Your task to perform on an android device: remove spam from my inbox in the gmail app Image 0: 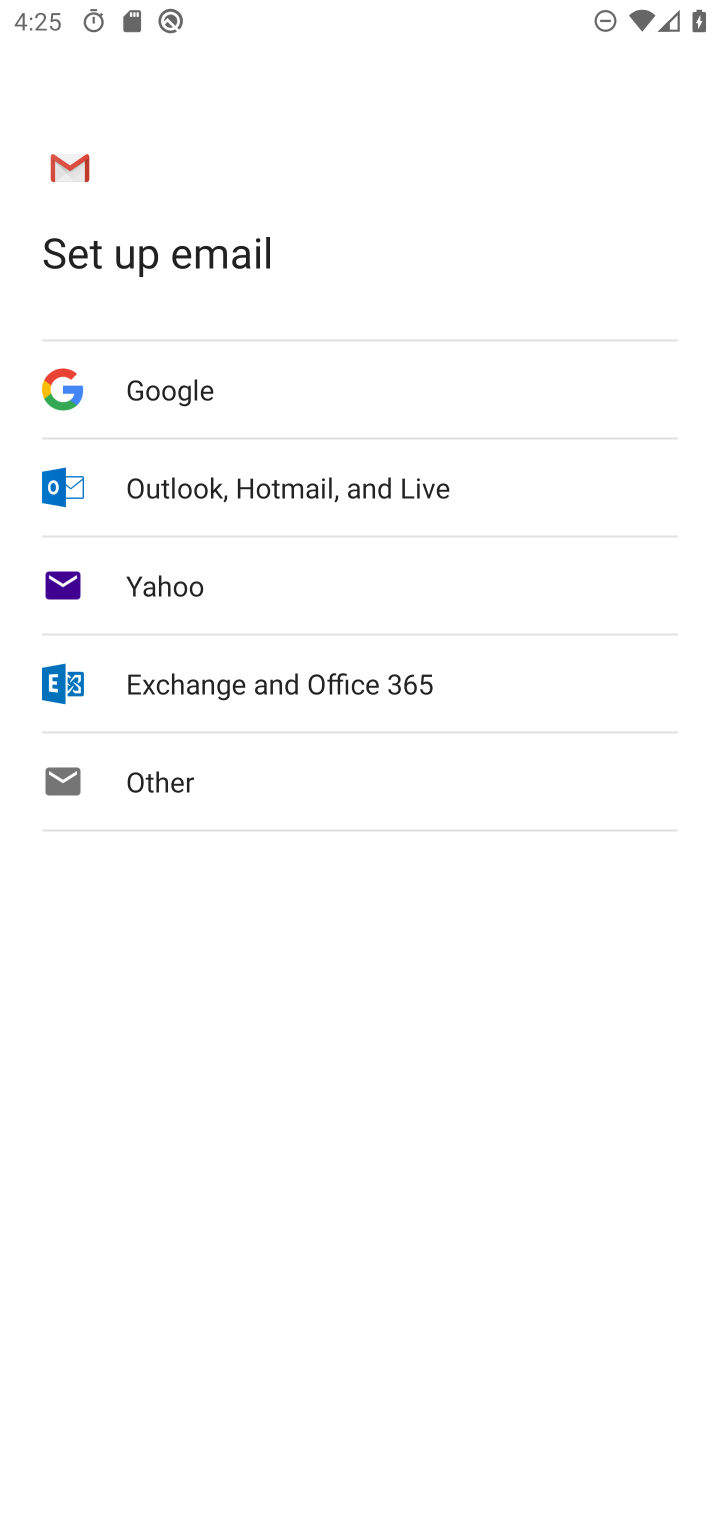
Step 0: press home button
Your task to perform on an android device: remove spam from my inbox in the gmail app Image 1: 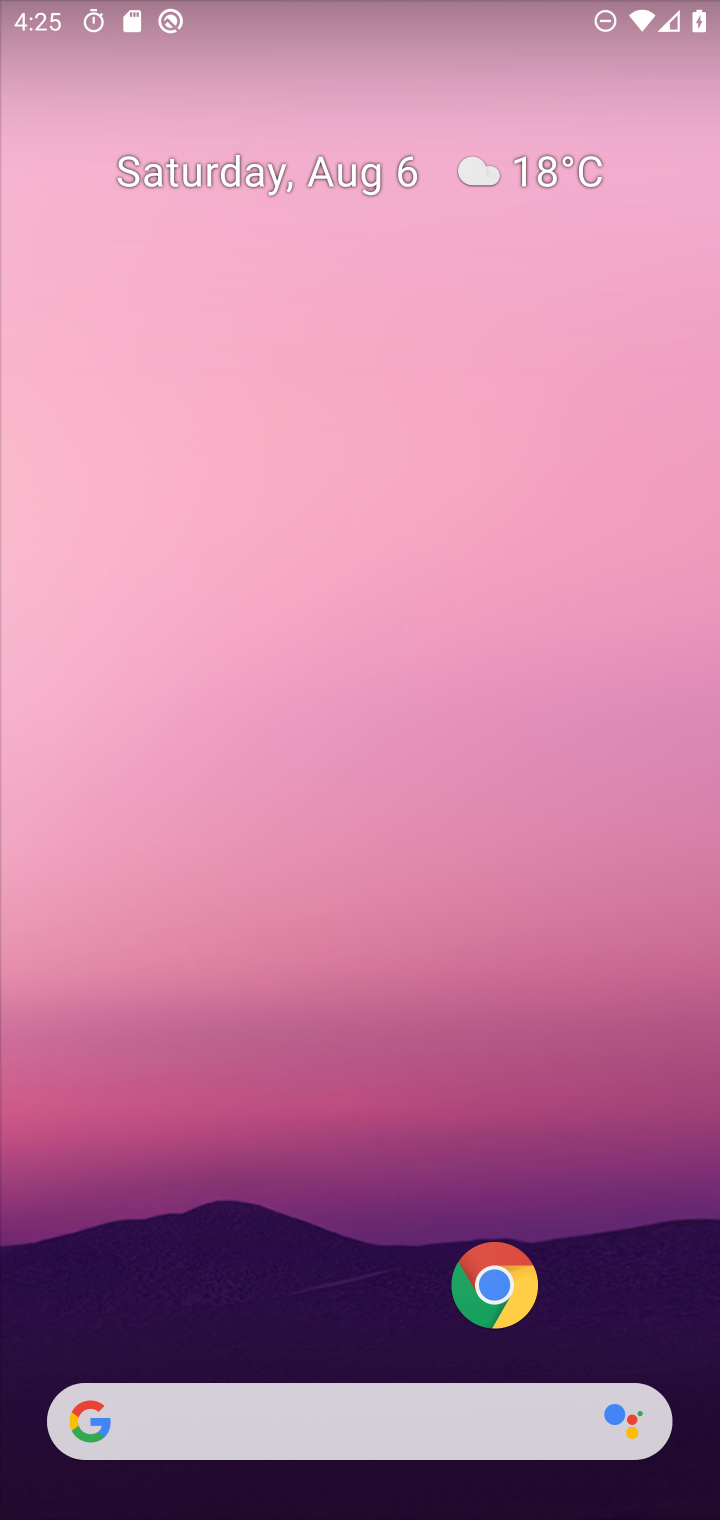
Step 1: drag from (372, 1309) to (401, 179)
Your task to perform on an android device: remove spam from my inbox in the gmail app Image 2: 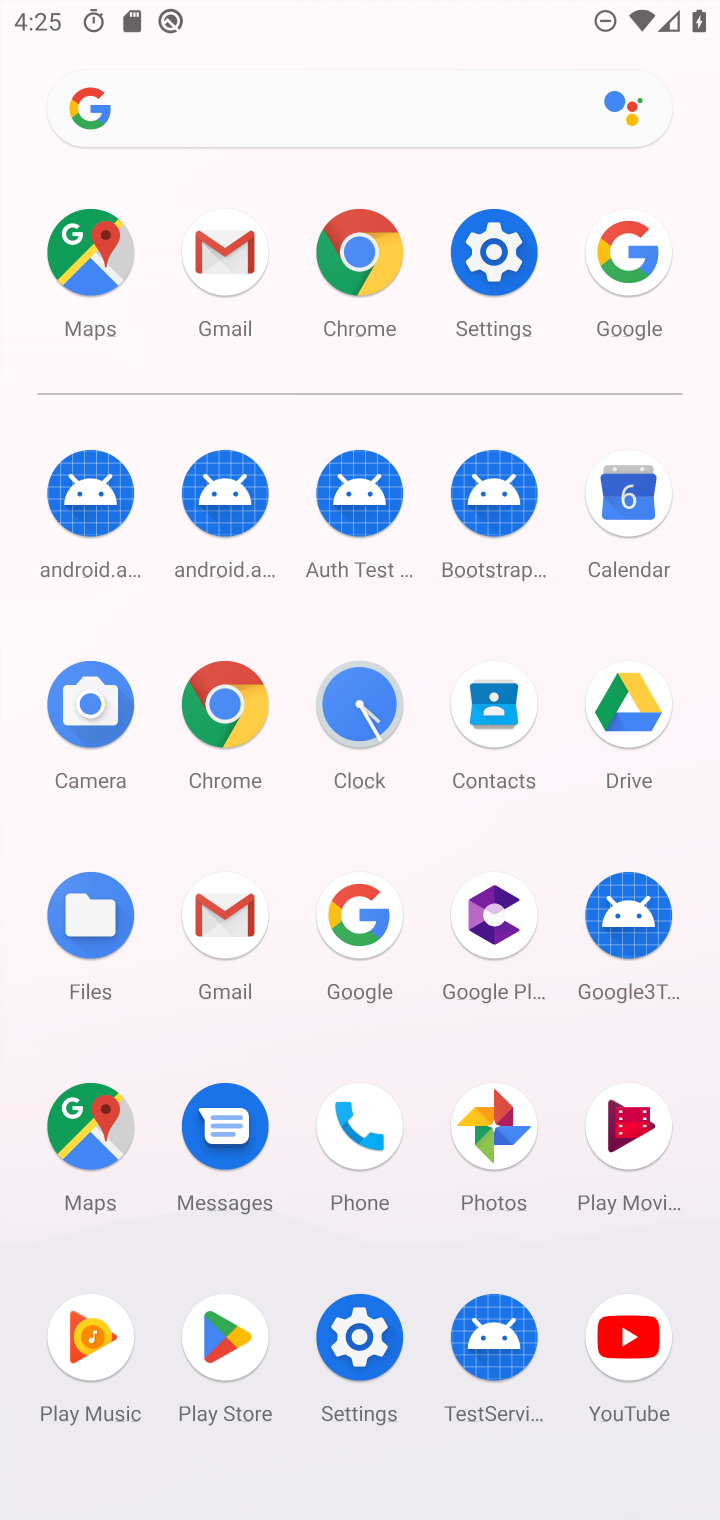
Step 2: click (213, 892)
Your task to perform on an android device: remove spam from my inbox in the gmail app Image 3: 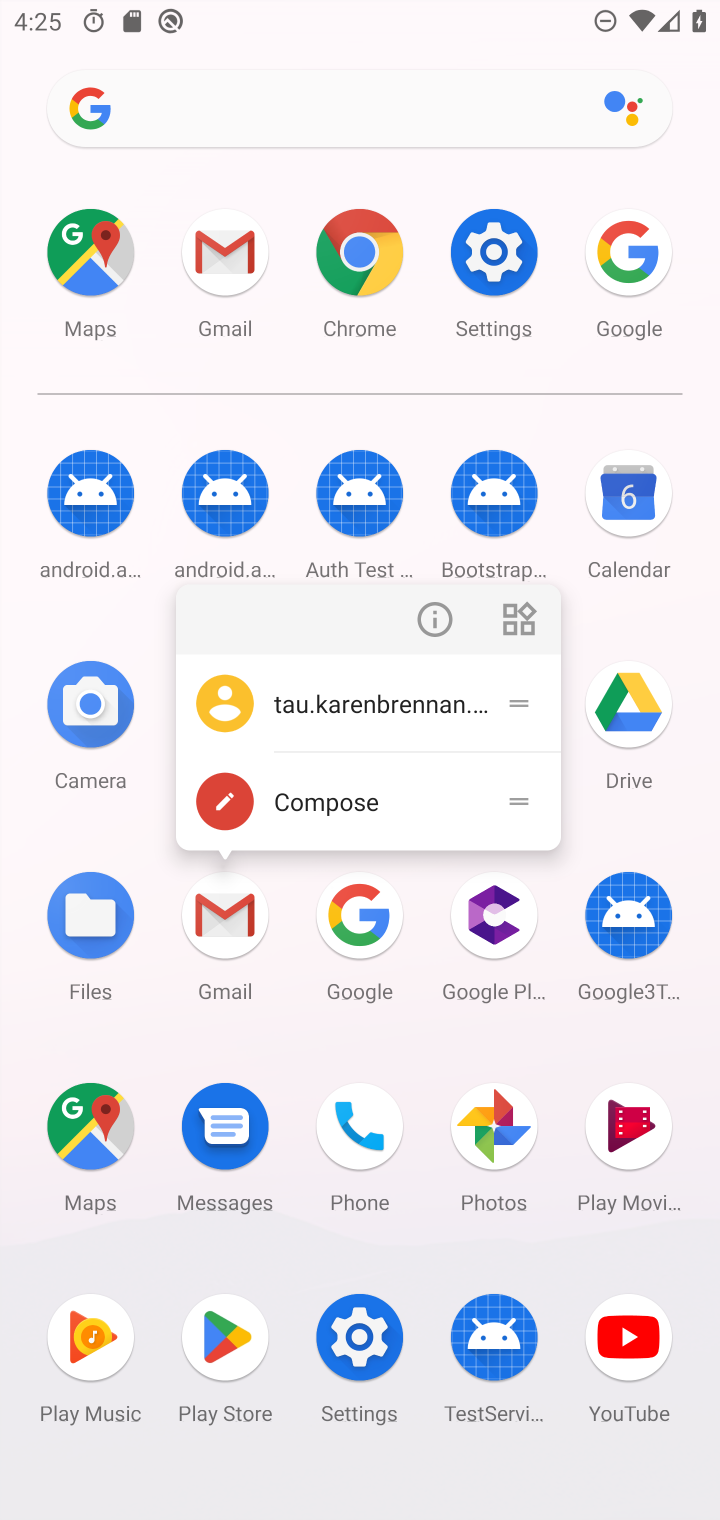
Step 3: click (211, 902)
Your task to perform on an android device: remove spam from my inbox in the gmail app Image 4: 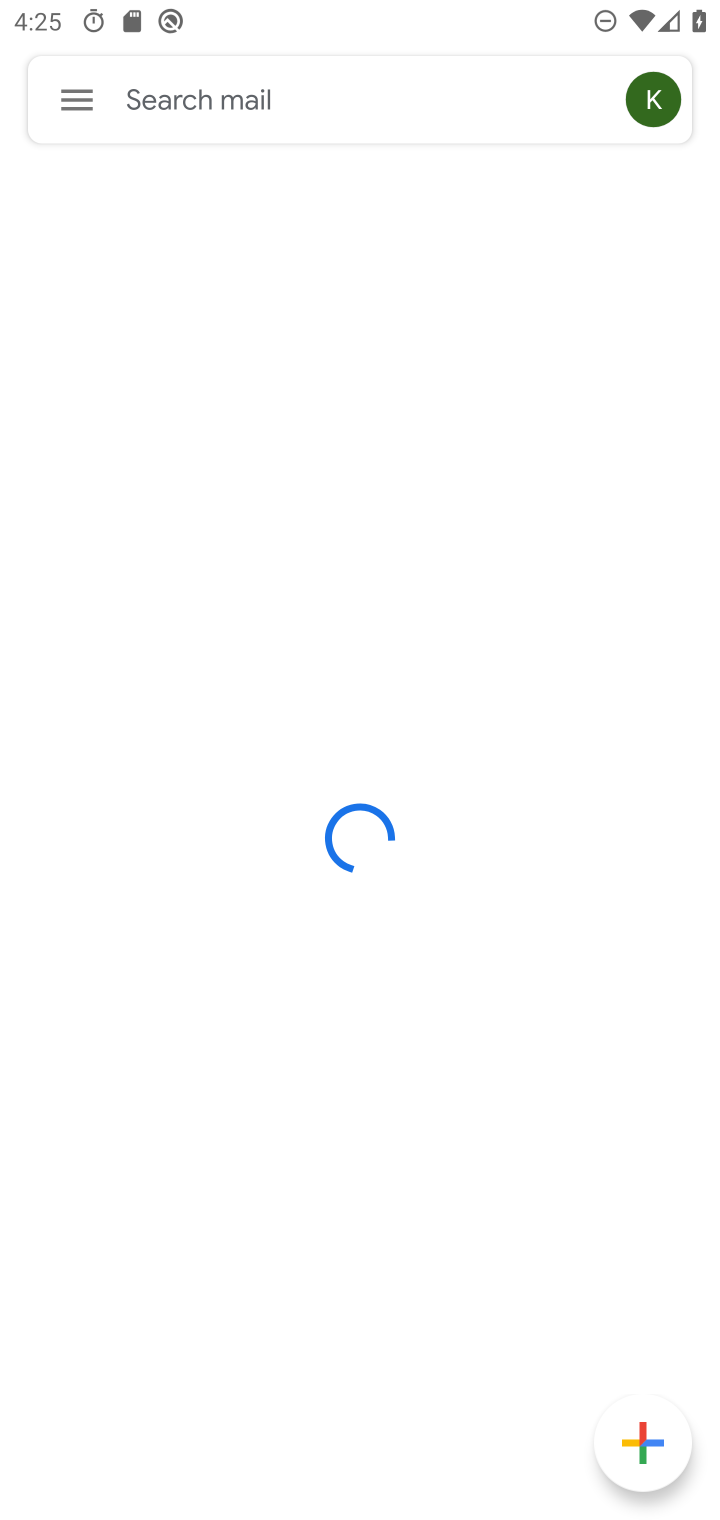
Step 4: click (62, 91)
Your task to perform on an android device: remove spam from my inbox in the gmail app Image 5: 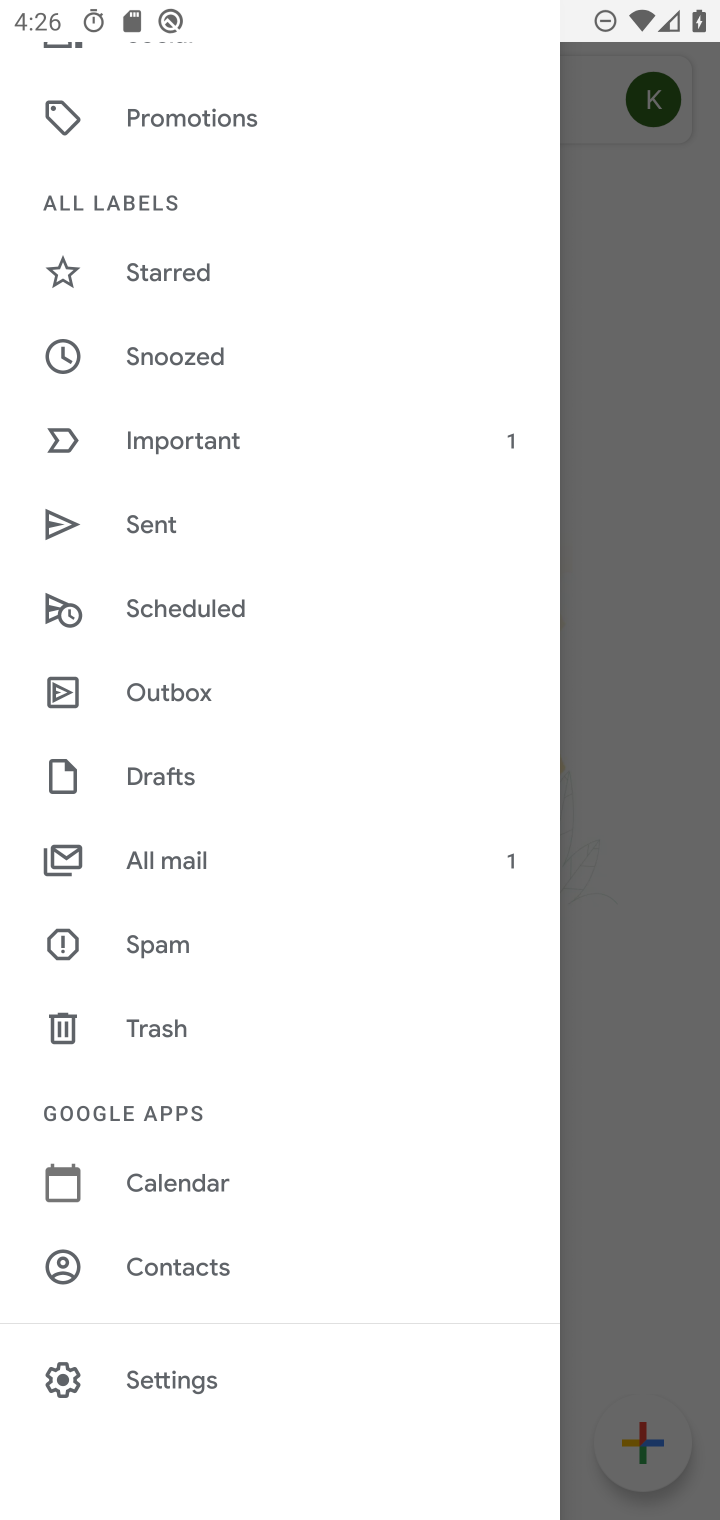
Step 5: click (163, 931)
Your task to perform on an android device: remove spam from my inbox in the gmail app Image 6: 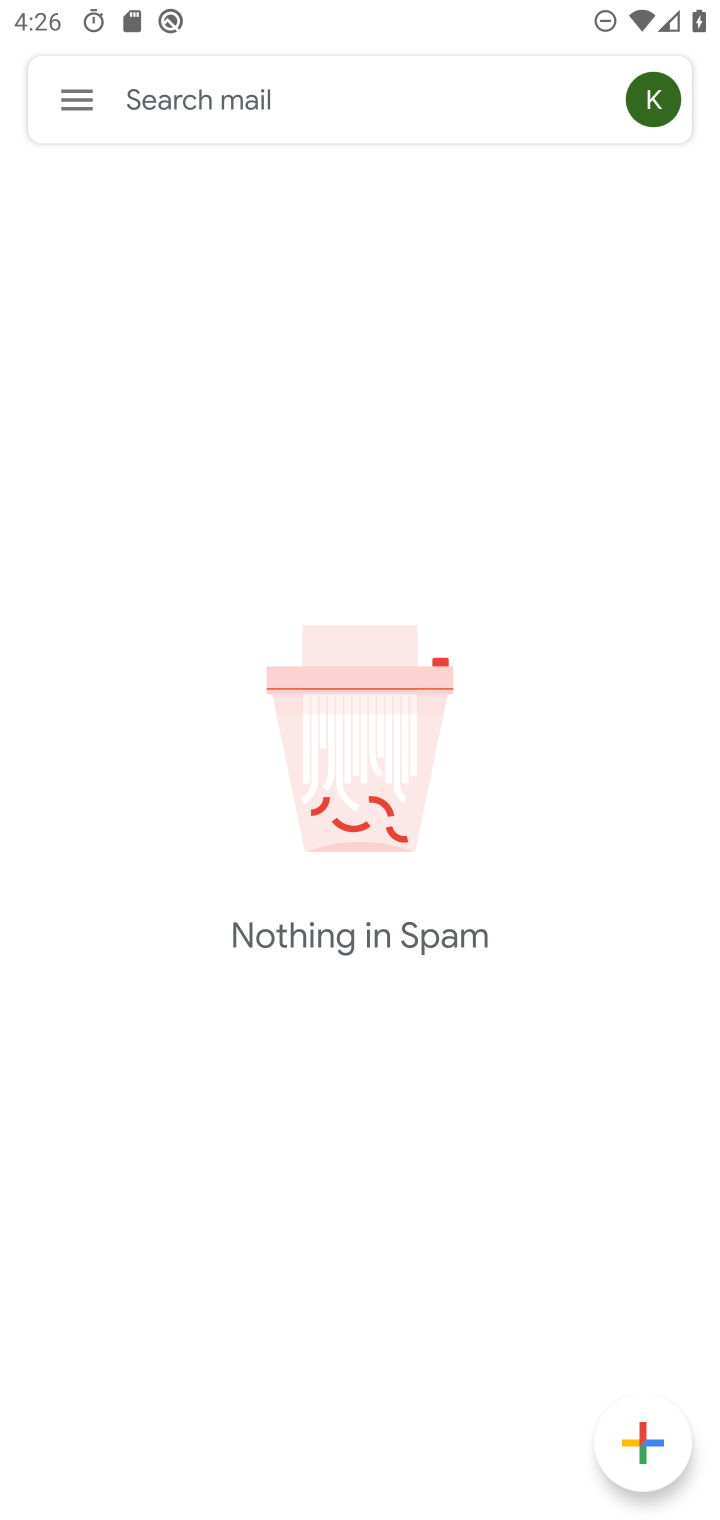
Step 6: task complete